Your task to perform on an android device: allow notifications from all sites in the chrome app Image 0: 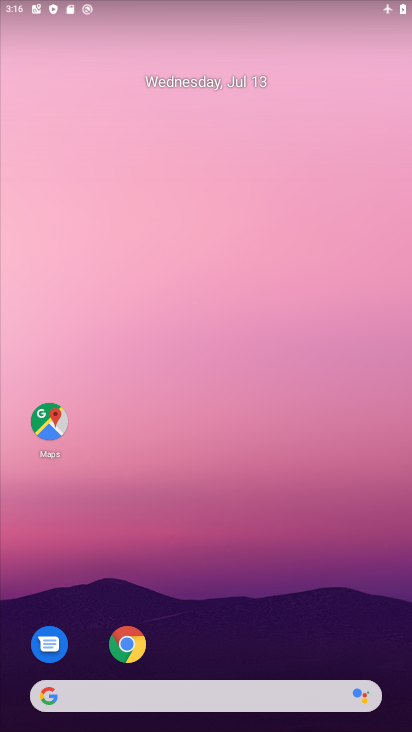
Step 0: drag from (289, 589) to (293, 4)
Your task to perform on an android device: allow notifications from all sites in the chrome app Image 1: 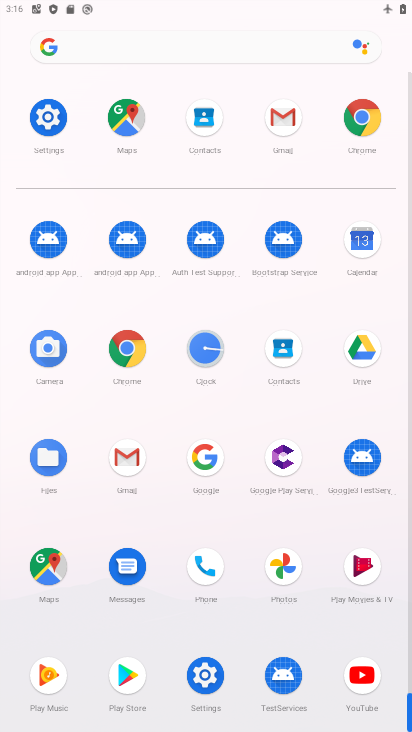
Step 1: click (128, 352)
Your task to perform on an android device: allow notifications from all sites in the chrome app Image 2: 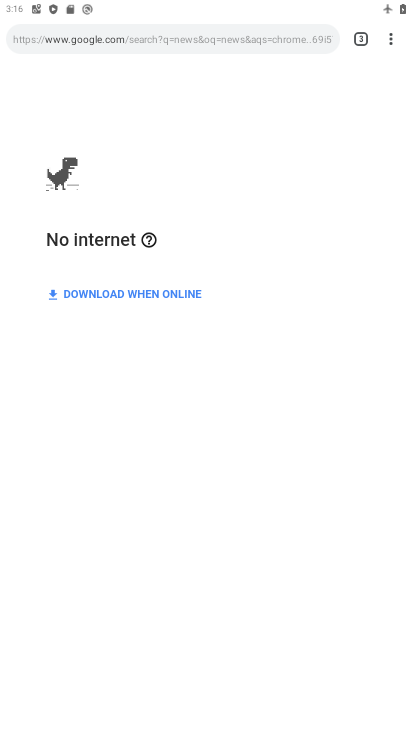
Step 2: click (390, 40)
Your task to perform on an android device: allow notifications from all sites in the chrome app Image 3: 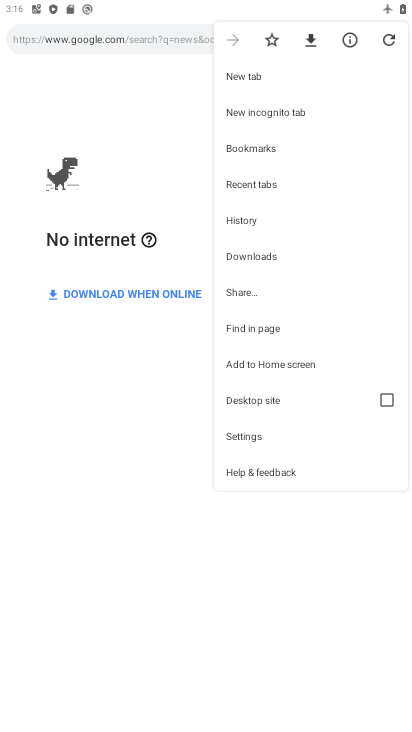
Step 3: click (273, 443)
Your task to perform on an android device: allow notifications from all sites in the chrome app Image 4: 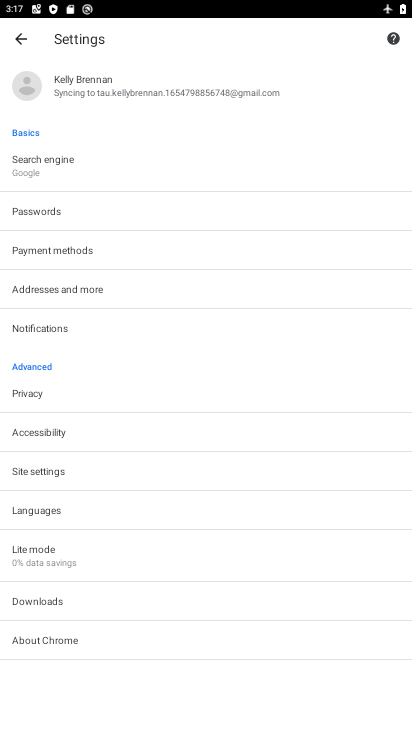
Step 4: click (54, 332)
Your task to perform on an android device: allow notifications from all sites in the chrome app Image 5: 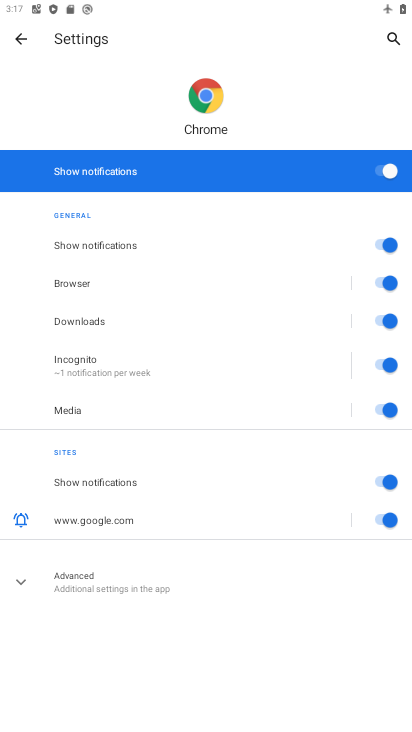
Step 5: task complete